Your task to perform on an android device: check storage Image 0: 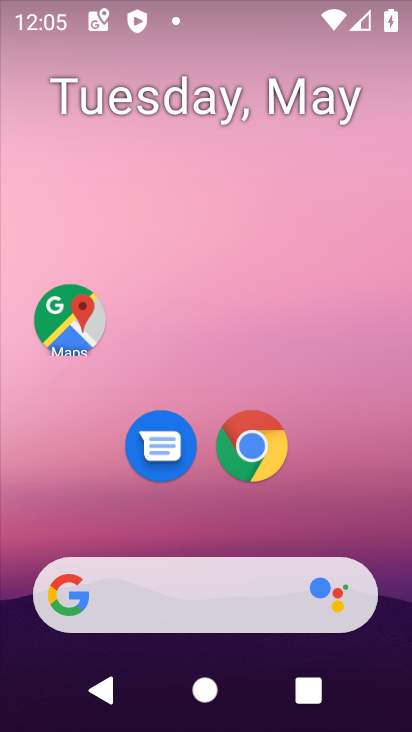
Step 0: drag from (350, 481) to (312, 8)
Your task to perform on an android device: check storage Image 1: 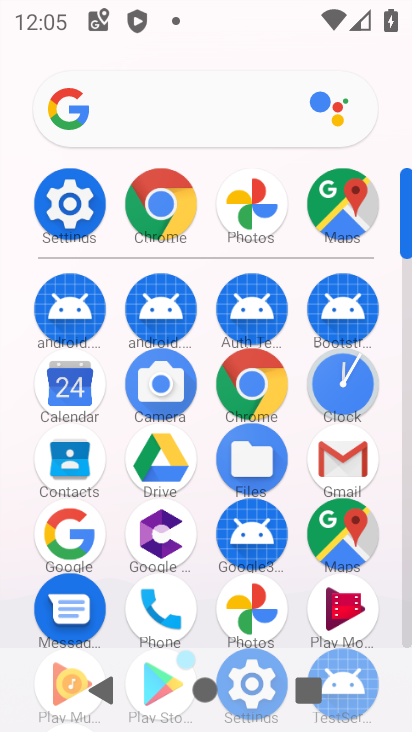
Step 1: click (54, 210)
Your task to perform on an android device: check storage Image 2: 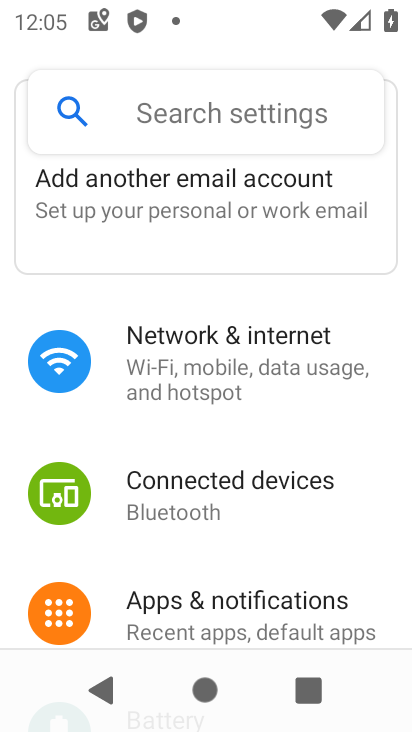
Step 2: drag from (240, 542) to (290, 123)
Your task to perform on an android device: check storage Image 3: 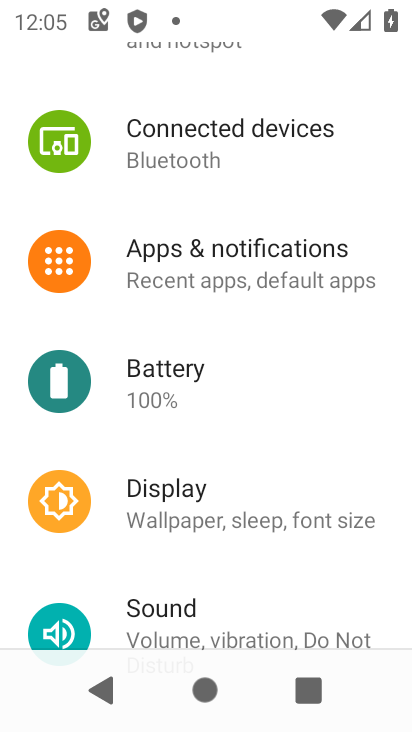
Step 3: drag from (205, 567) to (243, 190)
Your task to perform on an android device: check storage Image 4: 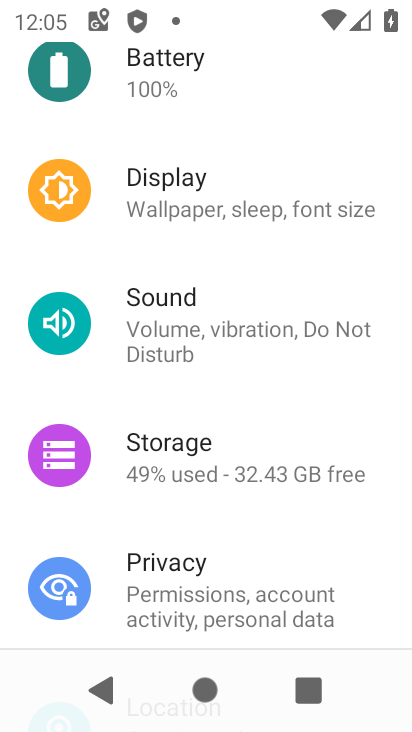
Step 4: click (185, 447)
Your task to perform on an android device: check storage Image 5: 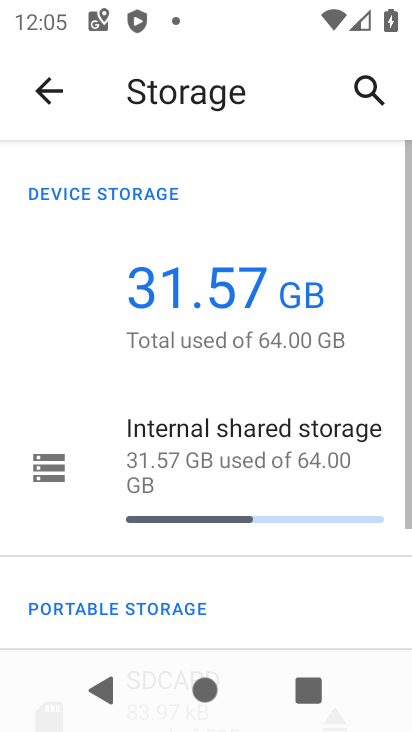
Step 5: click (189, 478)
Your task to perform on an android device: check storage Image 6: 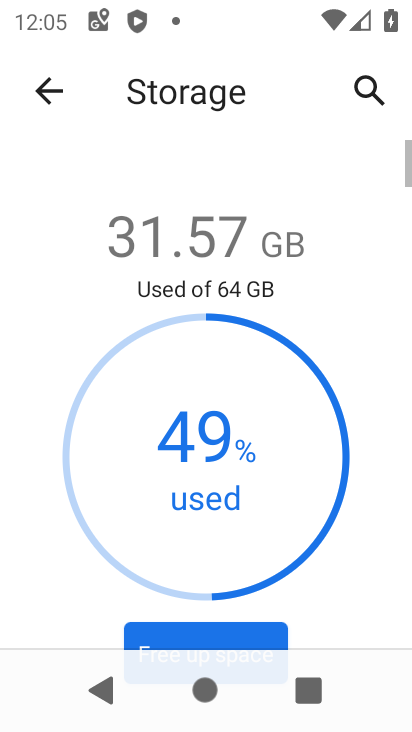
Step 6: task complete